Your task to perform on an android device: Search for Mexican restaurants on Maps Image 0: 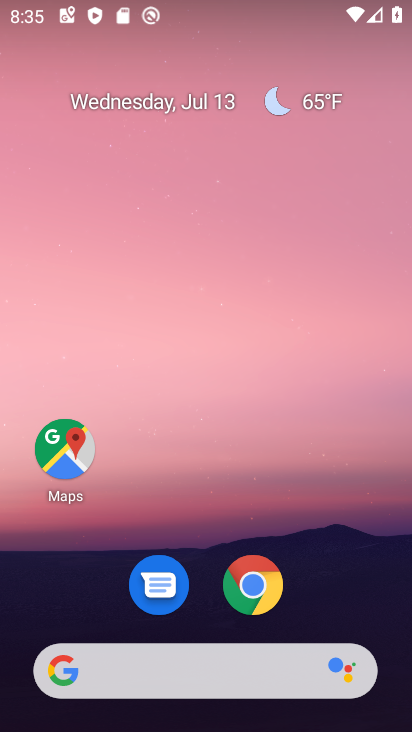
Step 0: click (56, 440)
Your task to perform on an android device: Search for Mexican restaurants on Maps Image 1: 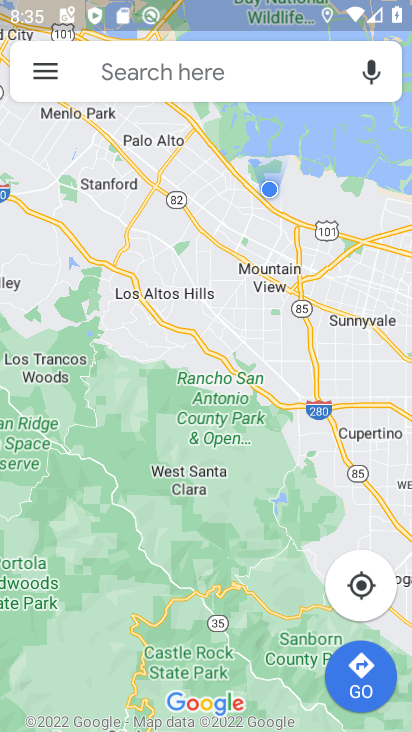
Step 1: click (169, 77)
Your task to perform on an android device: Search for Mexican restaurants on Maps Image 2: 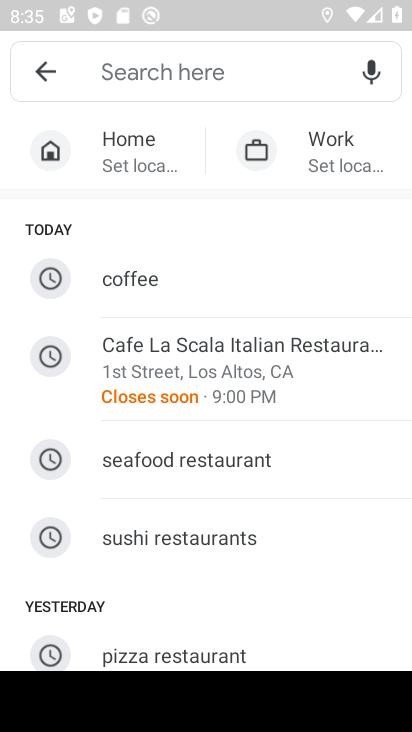
Step 2: drag from (174, 575) to (184, 279)
Your task to perform on an android device: Search for Mexican restaurants on Maps Image 3: 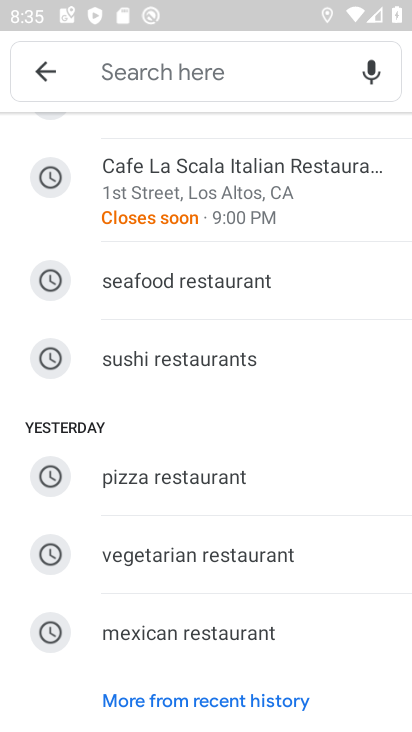
Step 3: click (220, 638)
Your task to perform on an android device: Search for Mexican restaurants on Maps Image 4: 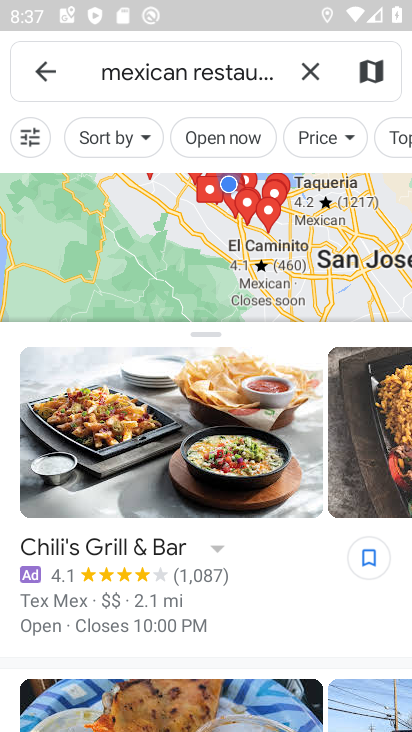
Step 4: task complete